Your task to perform on an android device: Open wifi settings Image 0: 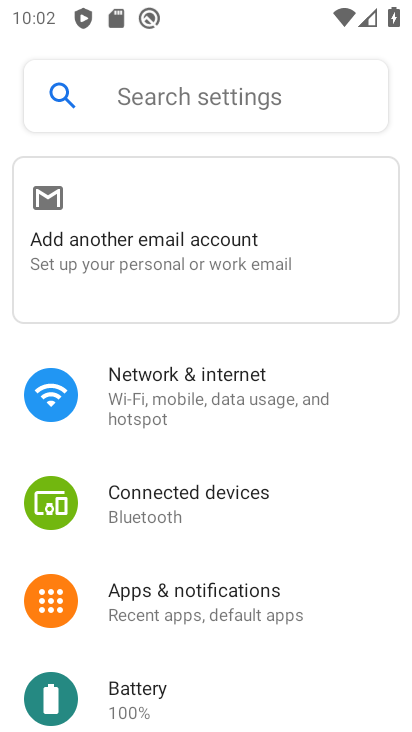
Step 0: press back button
Your task to perform on an android device: Open wifi settings Image 1: 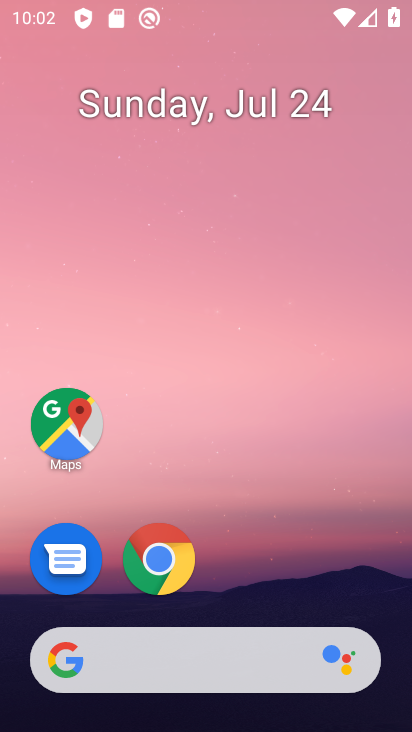
Step 1: drag from (139, 15) to (153, 581)
Your task to perform on an android device: Open wifi settings Image 2: 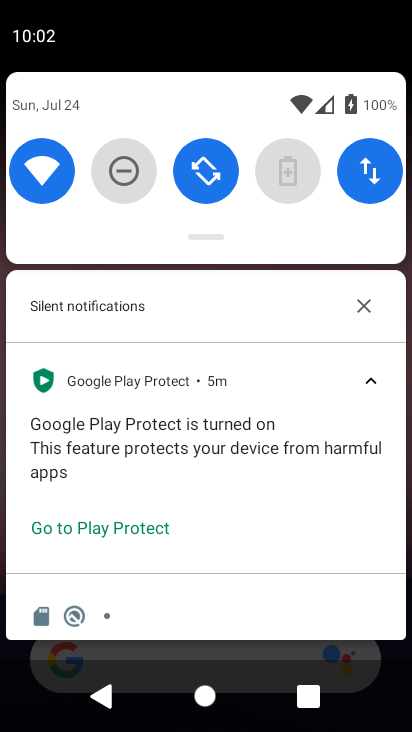
Step 2: click (43, 167)
Your task to perform on an android device: Open wifi settings Image 3: 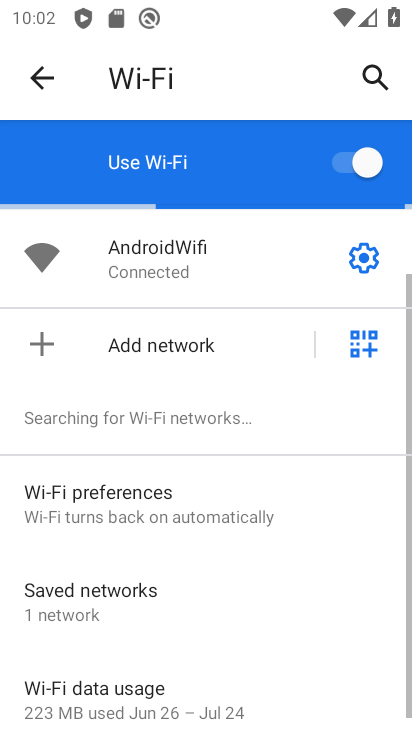
Step 3: task complete